Your task to perform on an android device: Open Youtube and go to the subscriptions tab Image 0: 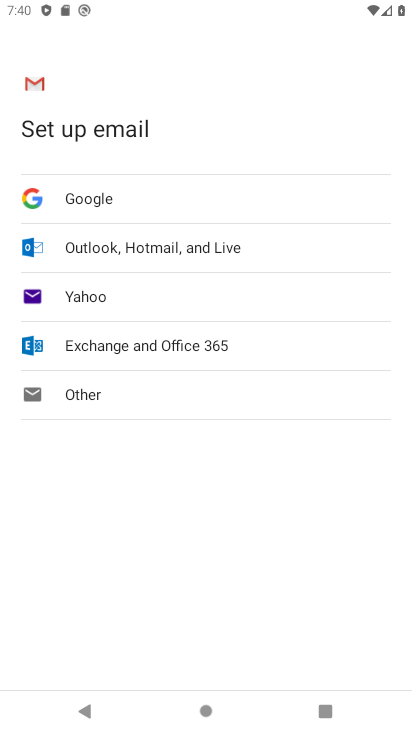
Step 0: press home button
Your task to perform on an android device: Open Youtube and go to the subscriptions tab Image 1: 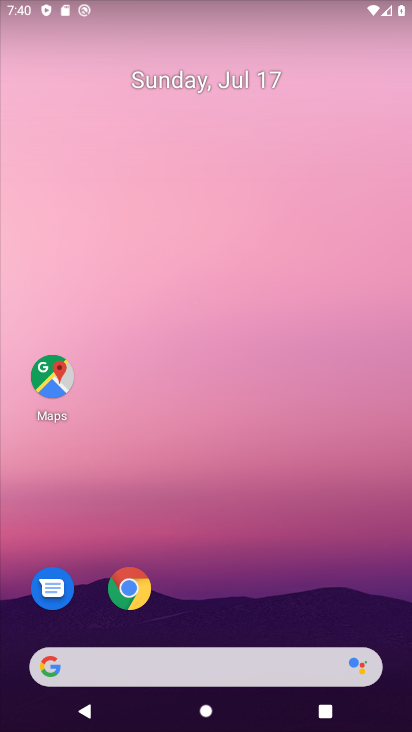
Step 1: drag from (273, 642) to (255, 220)
Your task to perform on an android device: Open Youtube and go to the subscriptions tab Image 2: 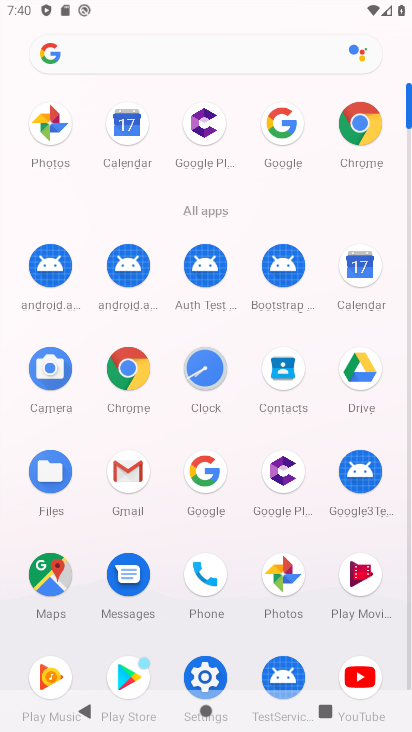
Step 2: click (364, 671)
Your task to perform on an android device: Open Youtube and go to the subscriptions tab Image 3: 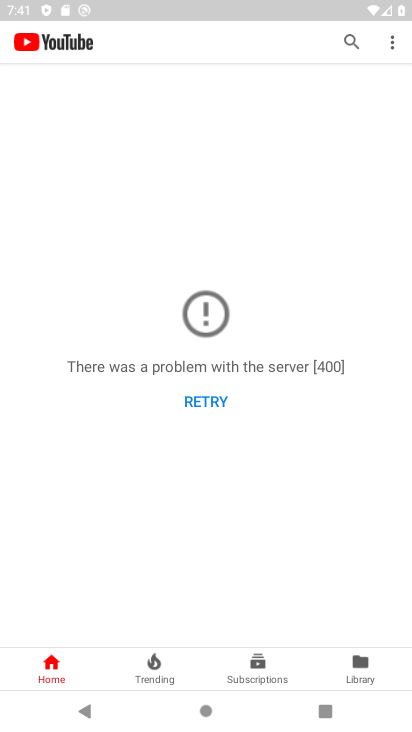
Step 3: click (266, 676)
Your task to perform on an android device: Open Youtube and go to the subscriptions tab Image 4: 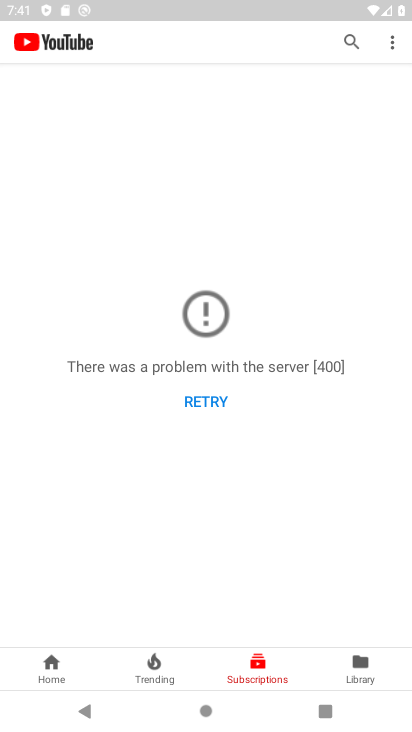
Step 4: task complete